Your task to perform on an android device: find snoozed emails in the gmail app Image 0: 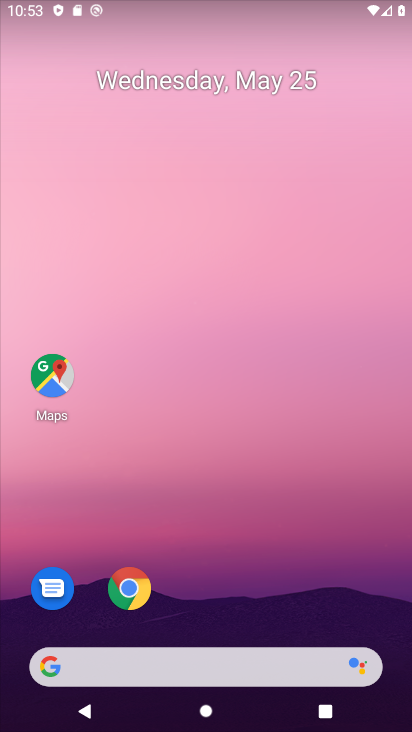
Step 0: drag from (288, 603) to (244, 72)
Your task to perform on an android device: find snoozed emails in the gmail app Image 1: 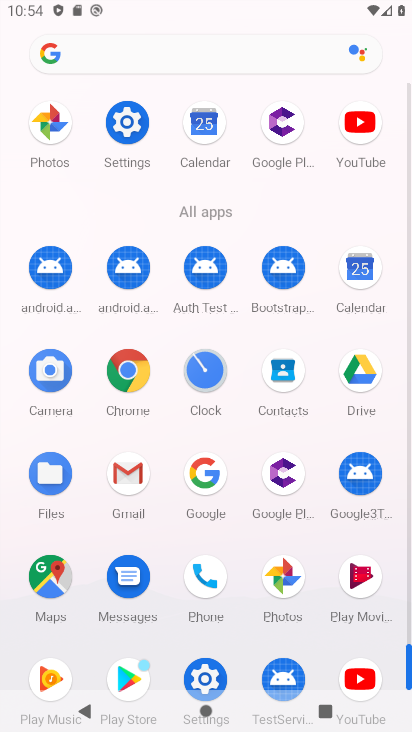
Step 1: click (126, 473)
Your task to perform on an android device: find snoozed emails in the gmail app Image 2: 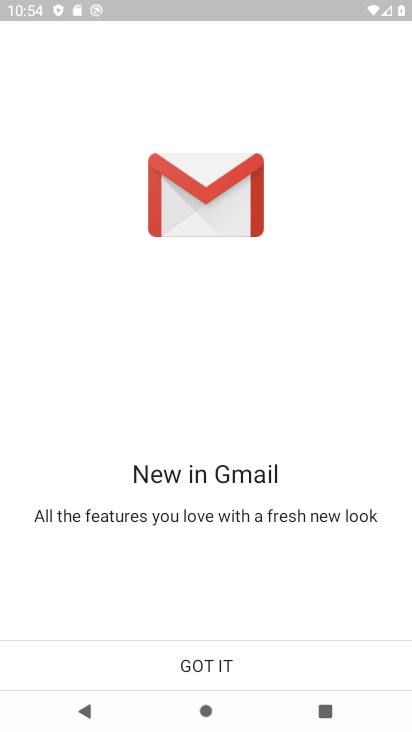
Step 2: click (200, 666)
Your task to perform on an android device: find snoozed emails in the gmail app Image 3: 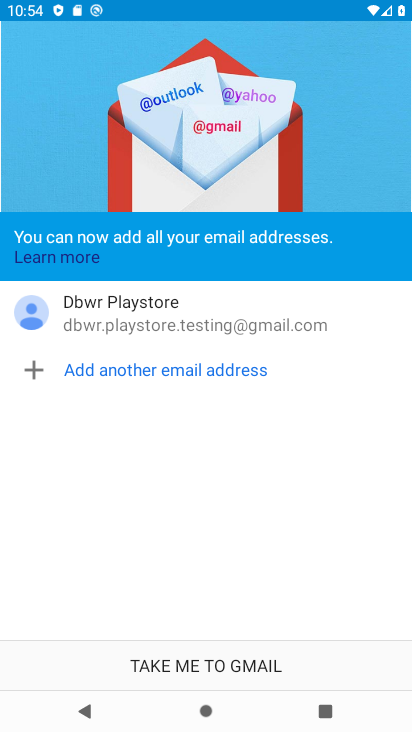
Step 3: click (200, 666)
Your task to perform on an android device: find snoozed emails in the gmail app Image 4: 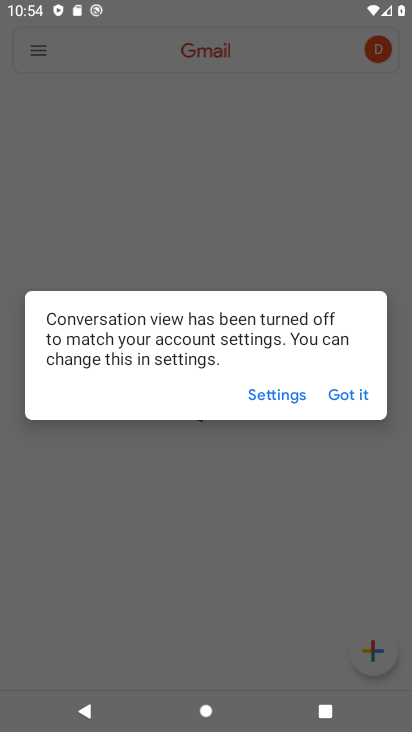
Step 4: click (358, 408)
Your task to perform on an android device: find snoozed emails in the gmail app Image 5: 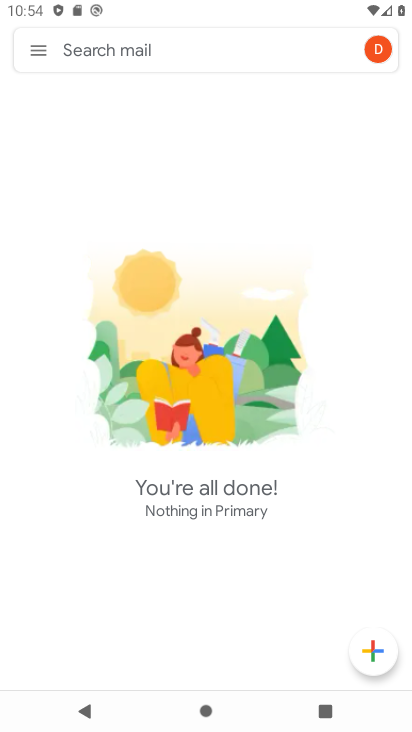
Step 5: click (38, 51)
Your task to perform on an android device: find snoozed emails in the gmail app Image 6: 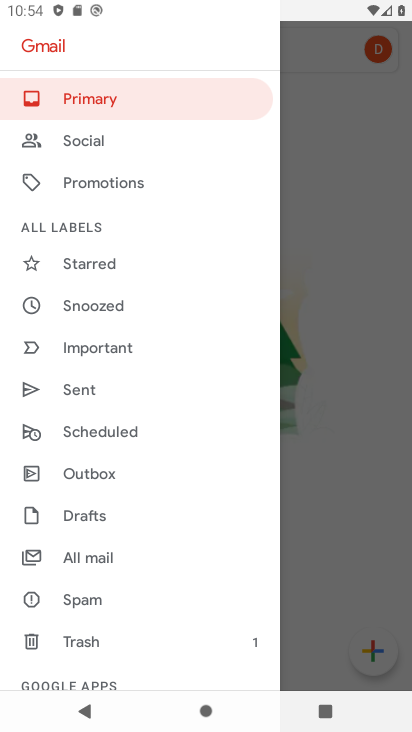
Step 6: click (106, 556)
Your task to perform on an android device: find snoozed emails in the gmail app Image 7: 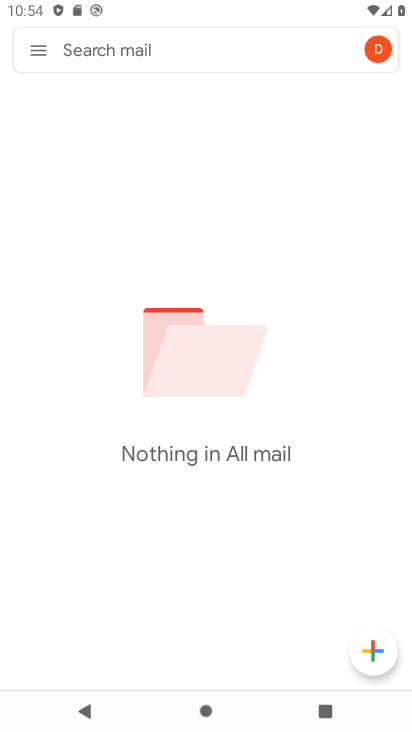
Step 7: click (36, 40)
Your task to perform on an android device: find snoozed emails in the gmail app Image 8: 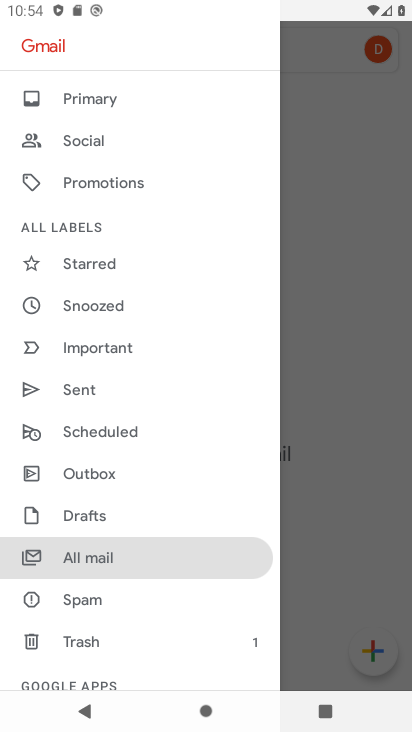
Step 8: click (107, 312)
Your task to perform on an android device: find snoozed emails in the gmail app Image 9: 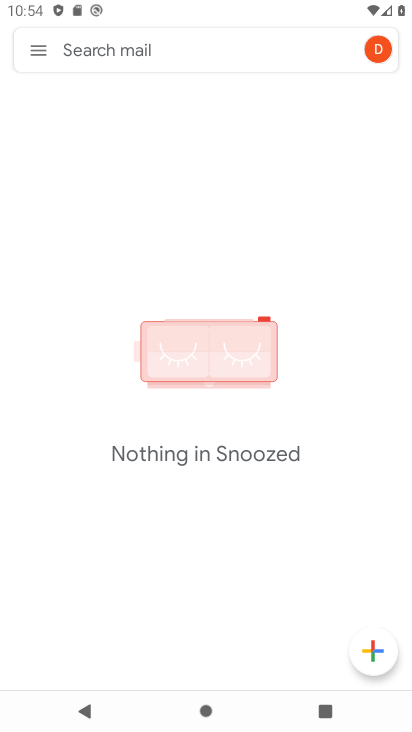
Step 9: click (30, 41)
Your task to perform on an android device: find snoozed emails in the gmail app Image 10: 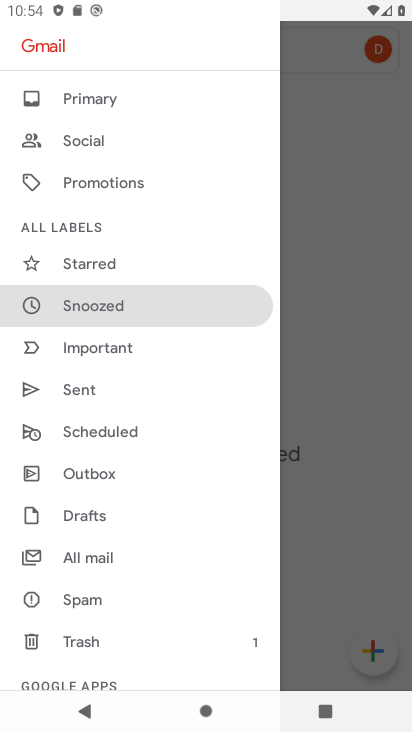
Step 10: drag from (92, 579) to (167, 486)
Your task to perform on an android device: find snoozed emails in the gmail app Image 11: 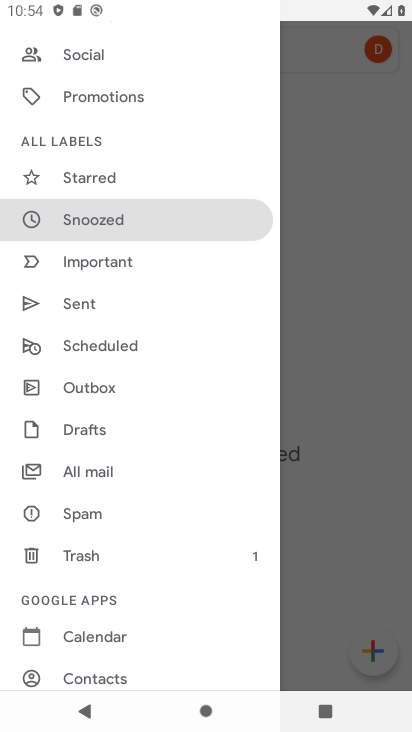
Step 11: click (116, 434)
Your task to perform on an android device: find snoozed emails in the gmail app Image 12: 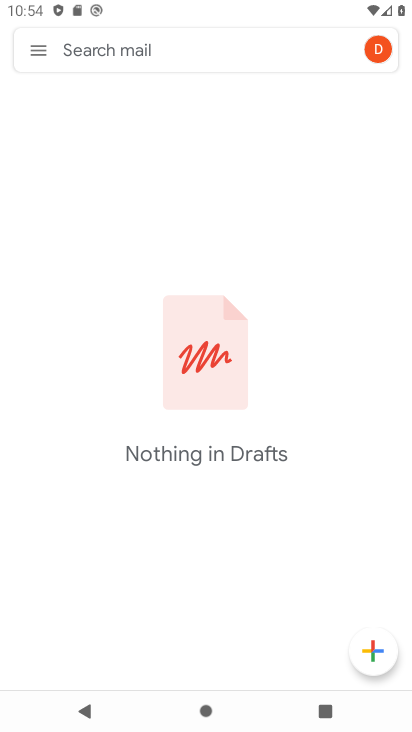
Step 12: click (36, 48)
Your task to perform on an android device: find snoozed emails in the gmail app Image 13: 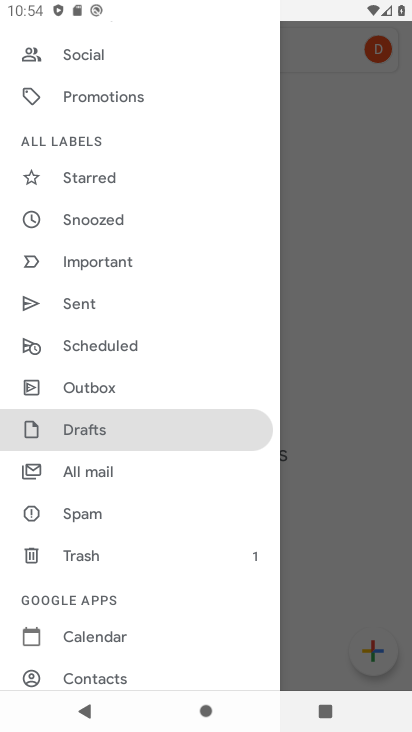
Step 13: task complete